Your task to perform on an android device: Open Chrome and go to settings Image 0: 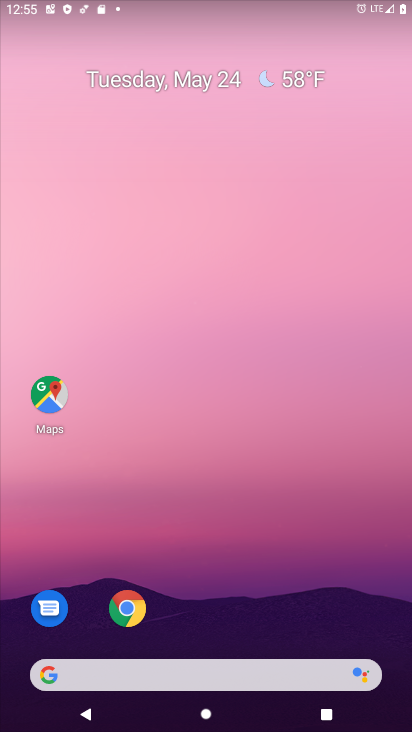
Step 0: press home button
Your task to perform on an android device: Open Chrome and go to settings Image 1: 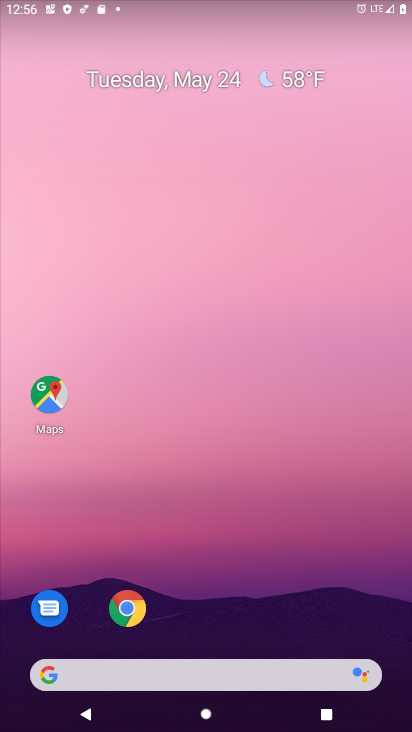
Step 1: drag from (304, 692) to (325, 152)
Your task to perform on an android device: Open Chrome and go to settings Image 2: 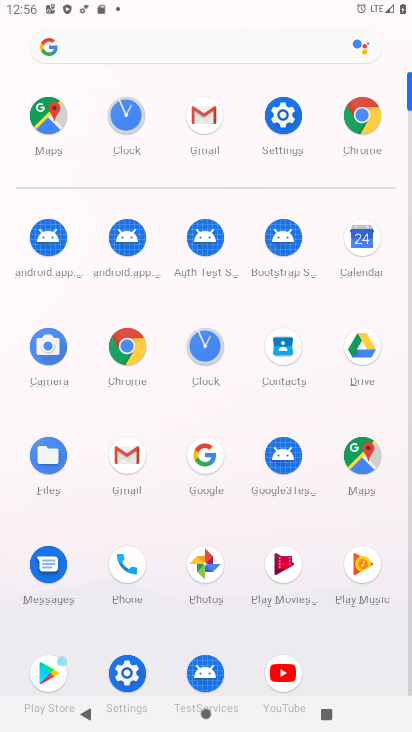
Step 2: click (348, 118)
Your task to perform on an android device: Open Chrome and go to settings Image 3: 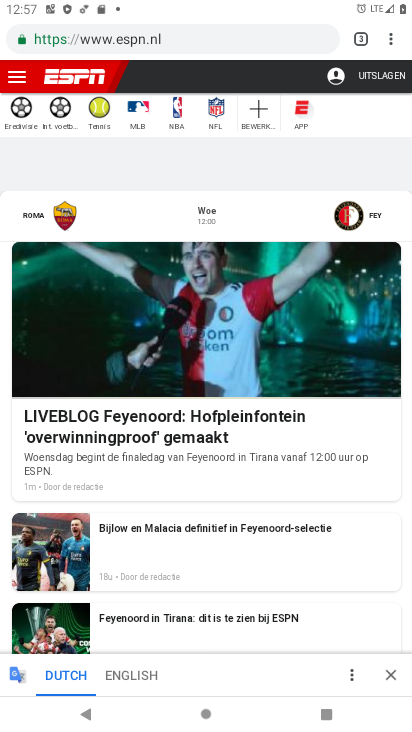
Step 3: click (393, 54)
Your task to perform on an android device: Open Chrome and go to settings Image 4: 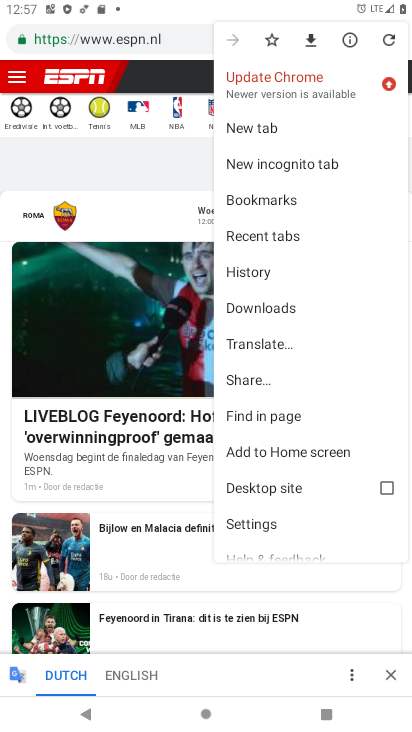
Step 4: click (247, 520)
Your task to perform on an android device: Open Chrome and go to settings Image 5: 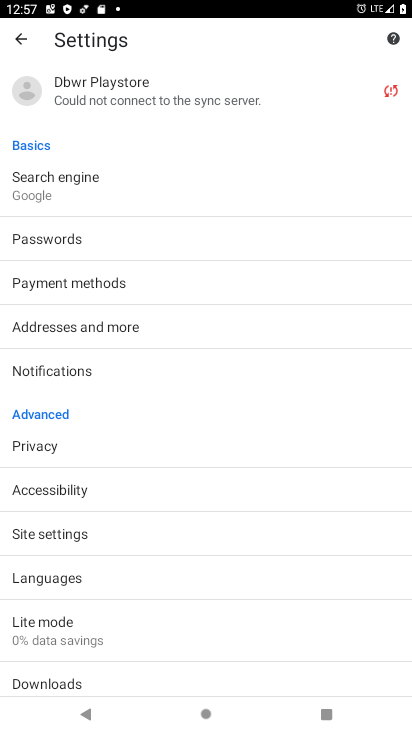
Step 5: task complete